Your task to perform on an android device: Open Reddit.com Image 0: 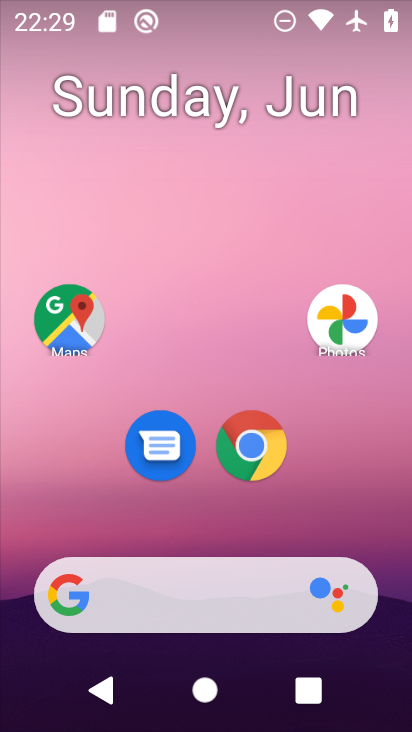
Step 0: press home button
Your task to perform on an android device: Open Reddit.com Image 1: 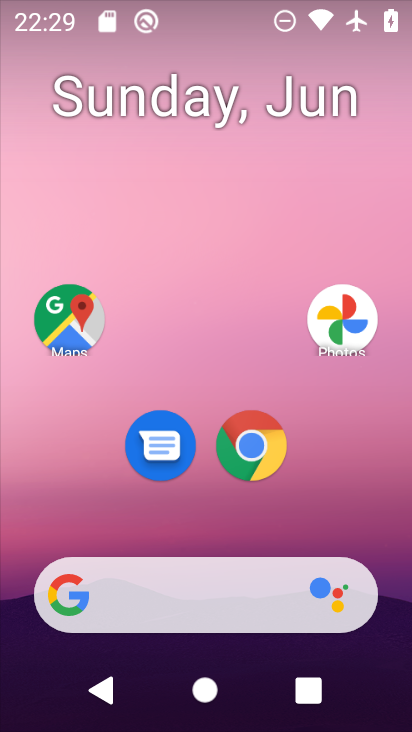
Step 1: click (63, 601)
Your task to perform on an android device: Open Reddit.com Image 2: 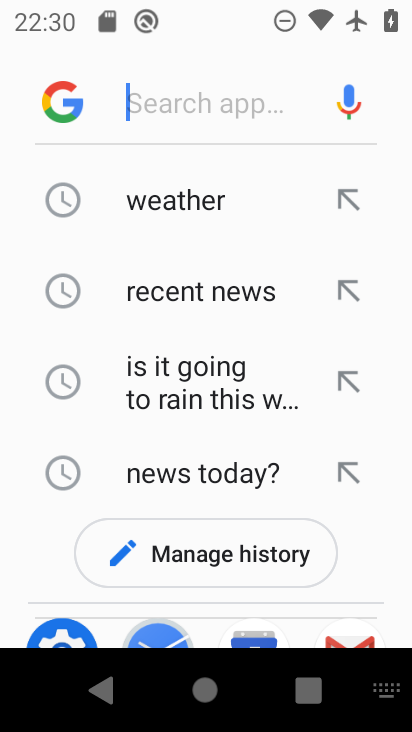
Step 2: type "Reddit.com"
Your task to perform on an android device: Open Reddit.com Image 3: 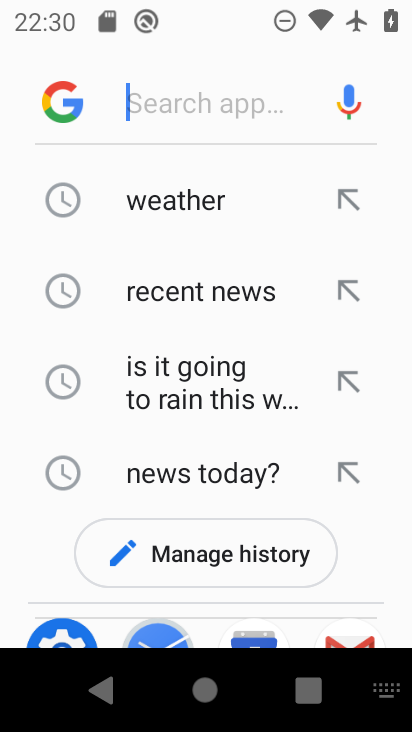
Step 3: click (217, 100)
Your task to perform on an android device: Open Reddit.com Image 4: 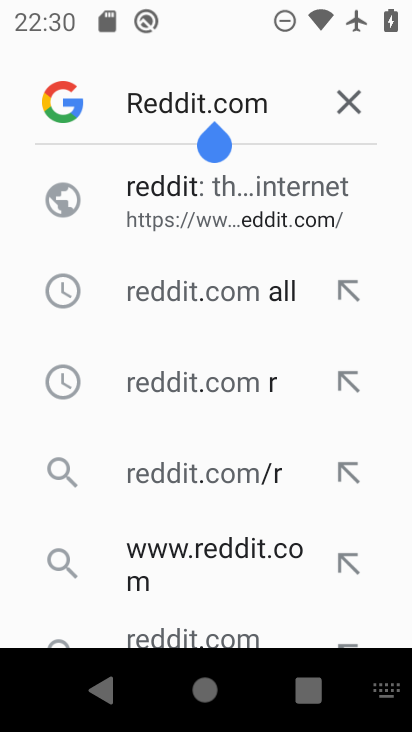
Step 4: click (172, 196)
Your task to perform on an android device: Open Reddit.com Image 5: 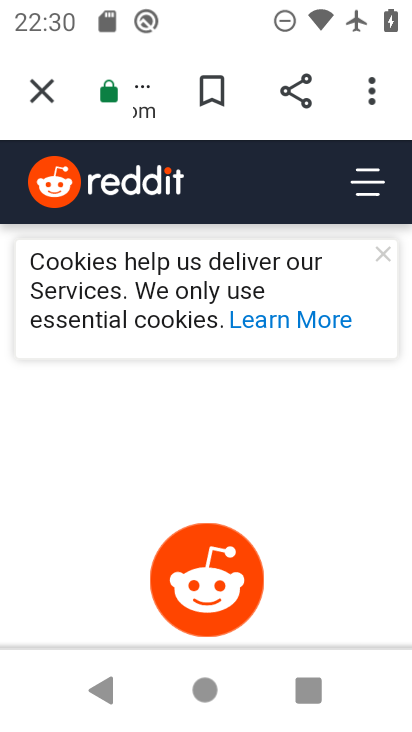
Step 5: task complete